Your task to perform on an android device: Search for Italian restaurants on Maps Image 0: 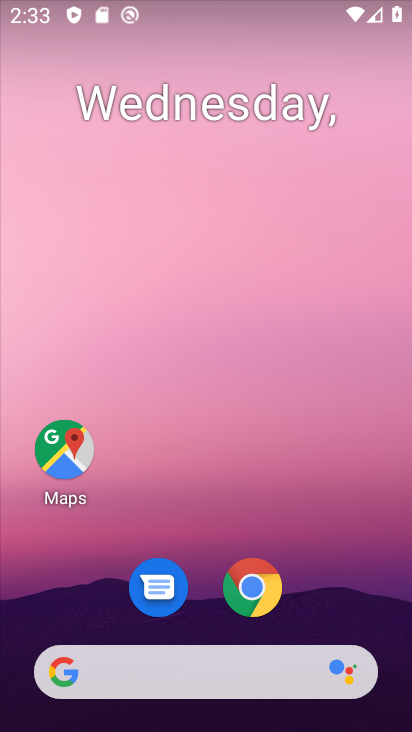
Step 0: drag from (212, 553) to (250, 69)
Your task to perform on an android device: Search for Italian restaurants on Maps Image 1: 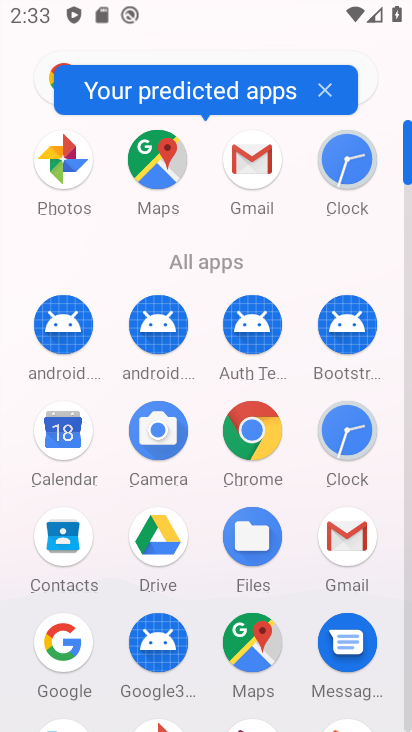
Step 1: click (246, 651)
Your task to perform on an android device: Search for Italian restaurants on Maps Image 2: 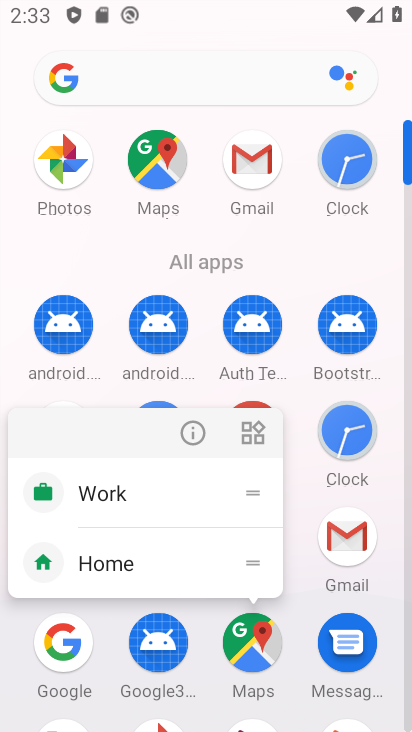
Step 2: click (189, 434)
Your task to perform on an android device: Search for Italian restaurants on Maps Image 3: 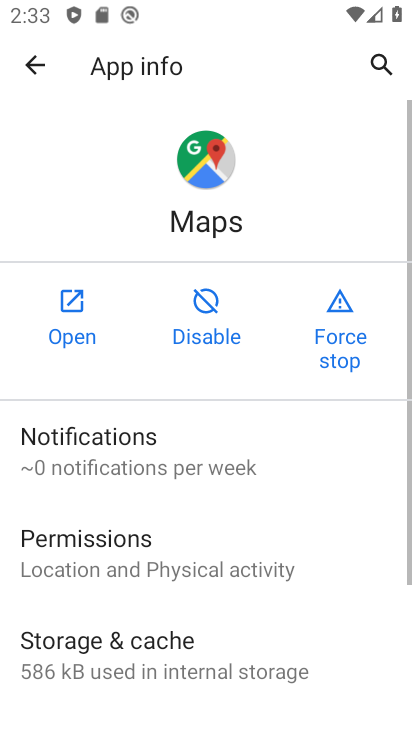
Step 3: click (64, 306)
Your task to perform on an android device: Search for Italian restaurants on Maps Image 4: 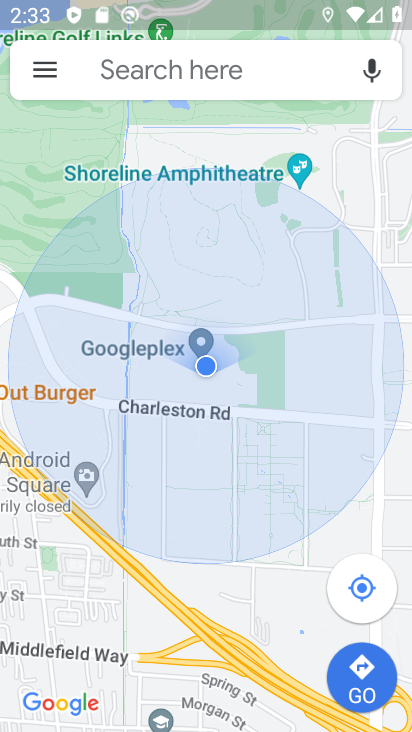
Step 4: click (144, 67)
Your task to perform on an android device: Search for Italian restaurants on Maps Image 5: 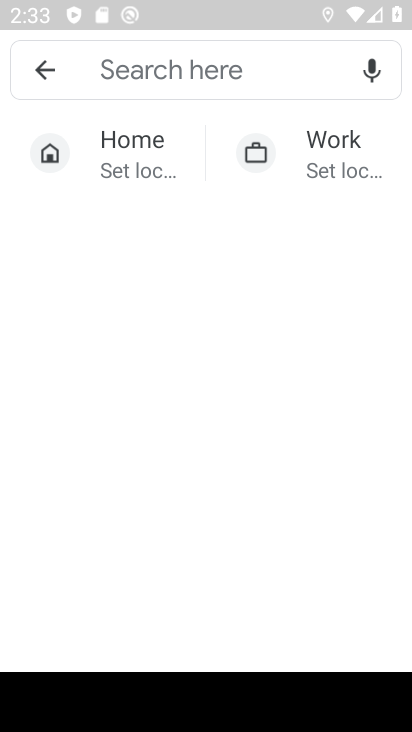
Step 5: type "italian restaurants"
Your task to perform on an android device: Search for Italian restaurants on Maps Image 6: 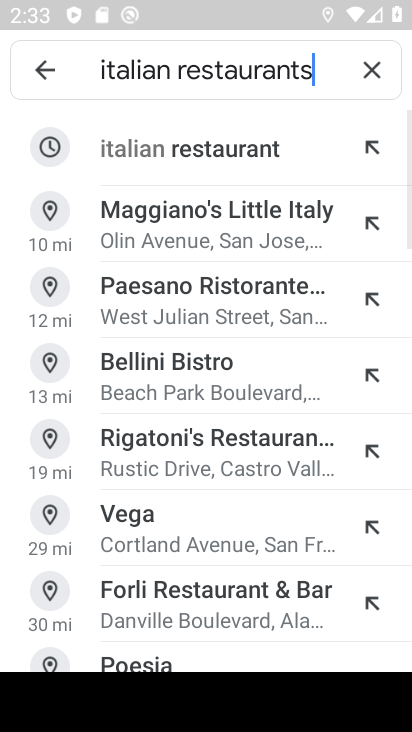
Step 6: click (119, 165)
Your task to perform on an android device: Search for Italian restaurants on Maps Image 7: 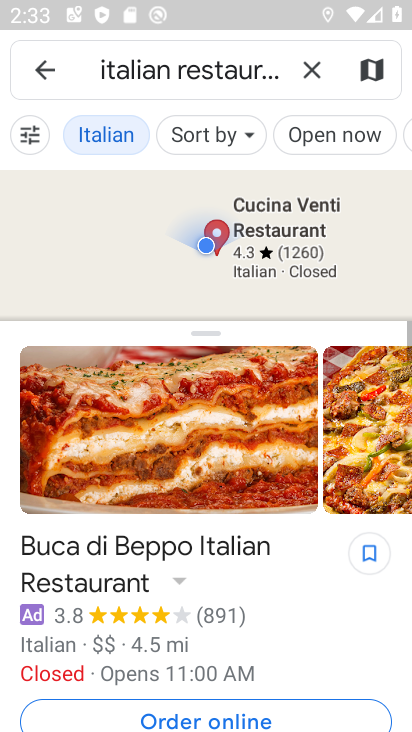
Step 7: task complete